Your task to perform on an android device: change the clock display to digital Image 0: 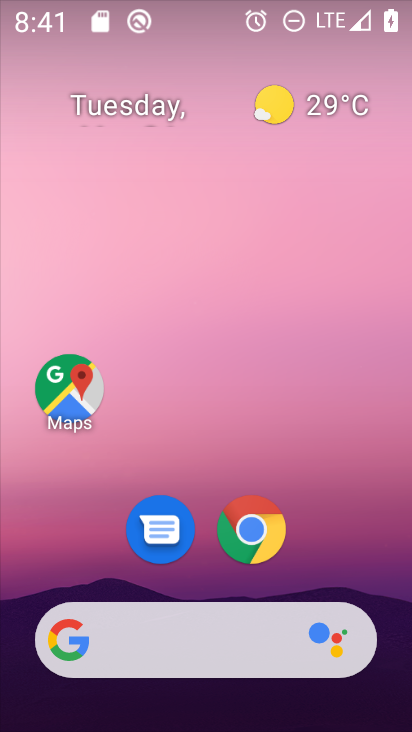
Step 0: drag from (388, 634) to (254, 0)
Your task to perform on an android device: change the clock display to digital Image 1: 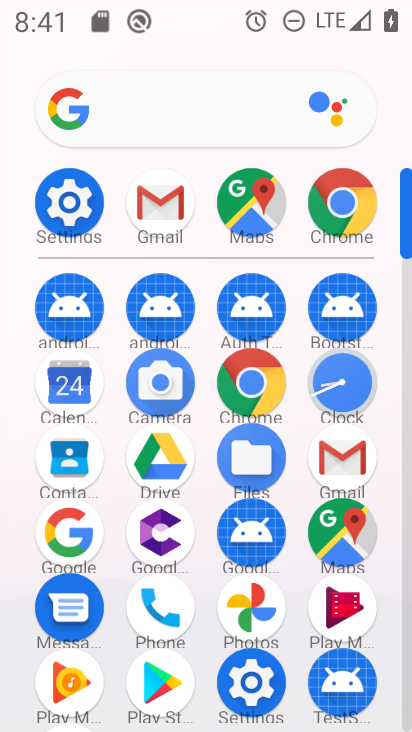
Step 1: click (343, 404)
Your task to perform on an android device: change the clock display to digital Image 2: 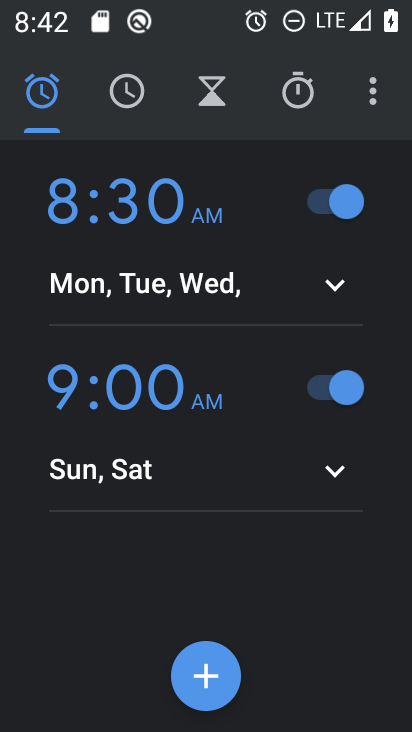
Step 2: click (374, 88)
Your task to perform on an android device: change the clock display to digital Image 3: 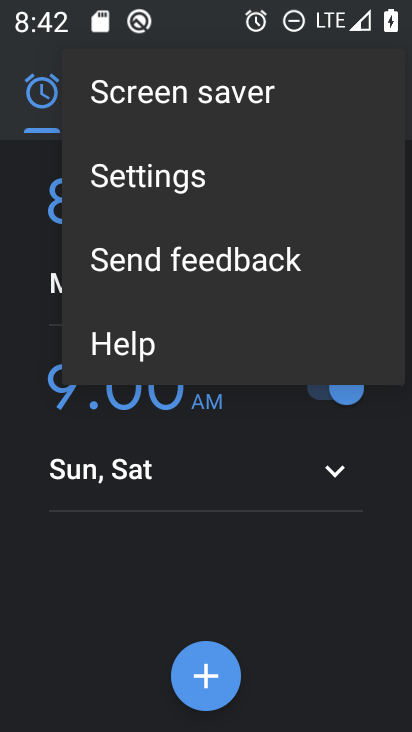
Step 3: click (243, 174)
Your task to perform on an android device: change the clock display to digital Image 4: 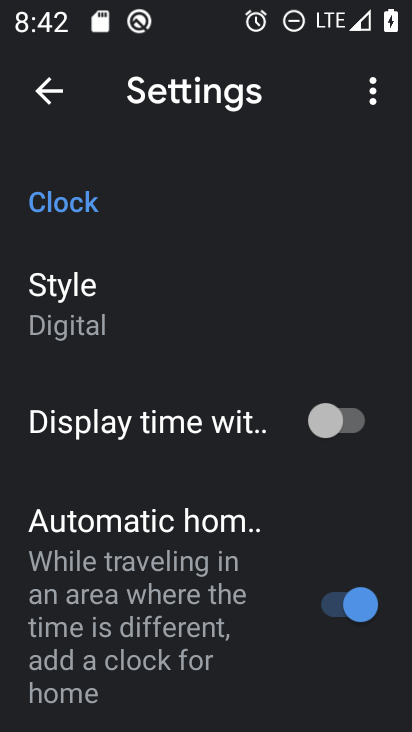
Step 4: drag from (198, 678) to (218, 555)
Your task to perform on an android device: change the clock display to digital Image 5: 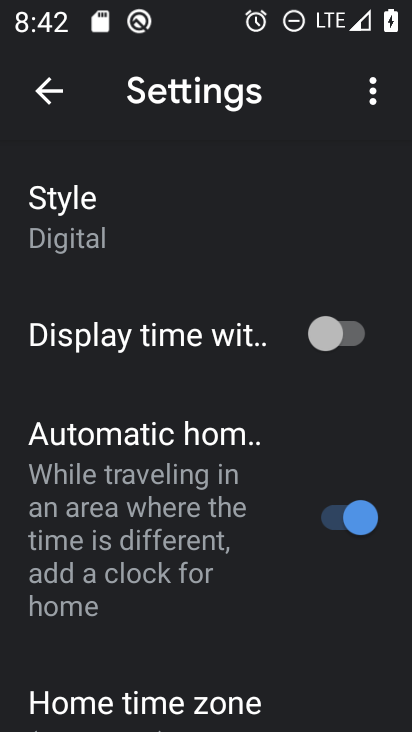
Step 5: click (107, 214)
Your task to perform on an android device: change the clock display to digital Image 6: 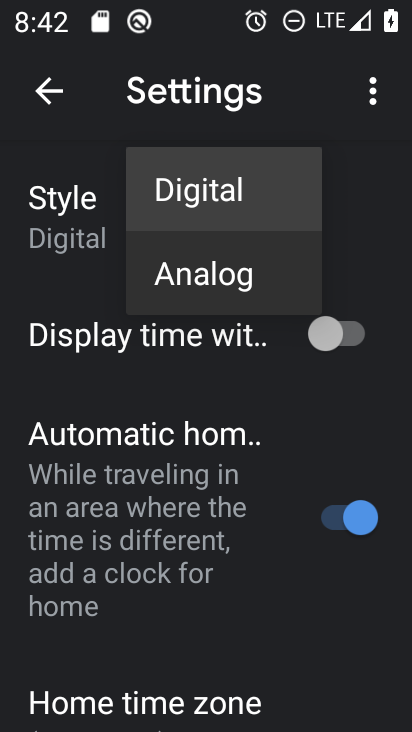
Step 6: click (213, 210)
Your task to perform on an android device: change the clock display to digital Image 7: 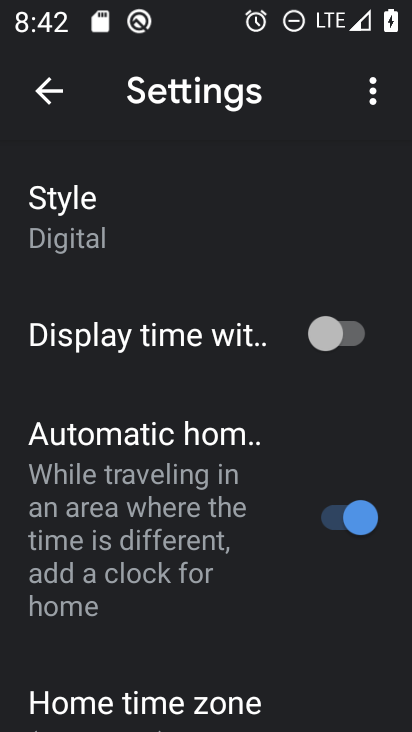
Step 7: task complete